Your task to perform on an android device: Open display settings Image 0: 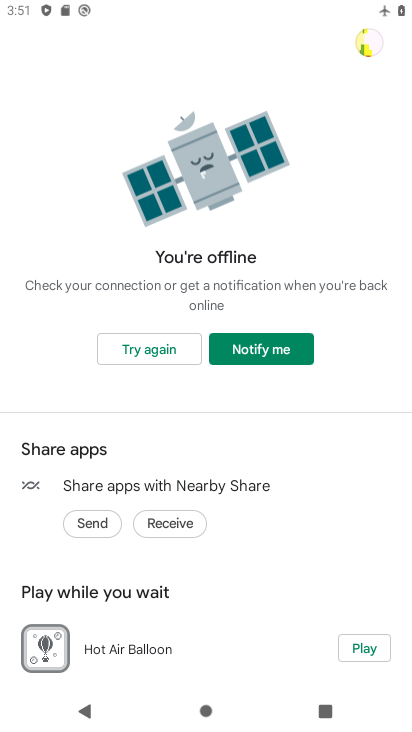
Step 0: press home button
Your task to perform on an android device: Open display settings Image 1: 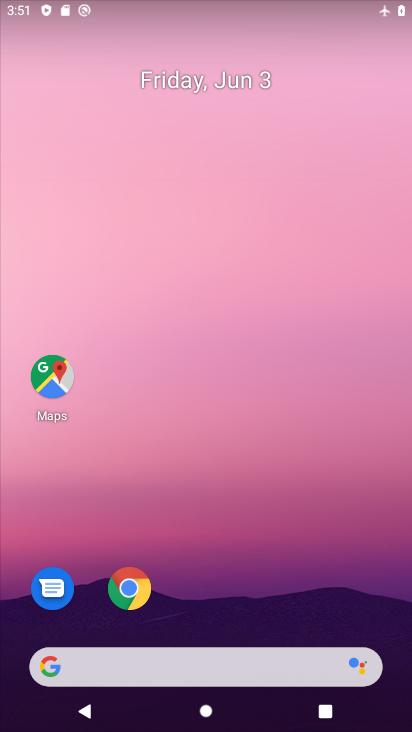
Step 1: drag from (211, 623) to (208, 178)
Your task to perform on an android device: Open display settings Image 2: 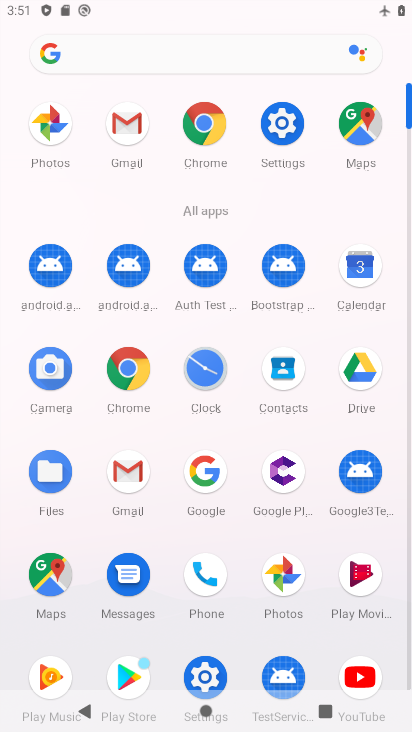
Step 2: click (293, 127)
Your task to perform on an android device: Open display settings Image 3: 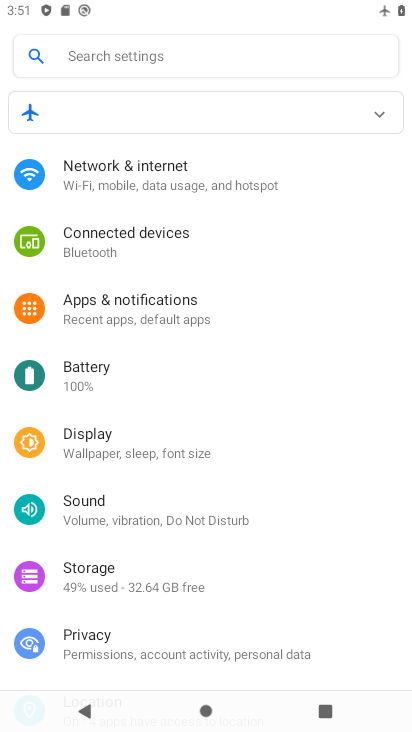
Step 3: click (199, 459)
Your task to perform on an android device: Open display settings Image 4: 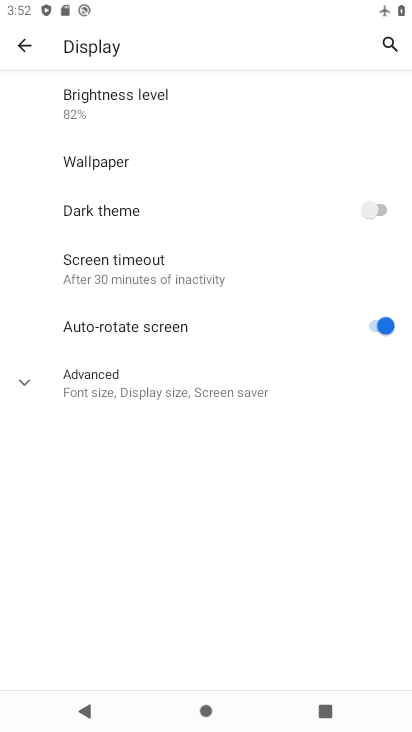
Step 4: task complete